Your task to perform on an android device: Search for a custom made wallet on Etsy Image 0: 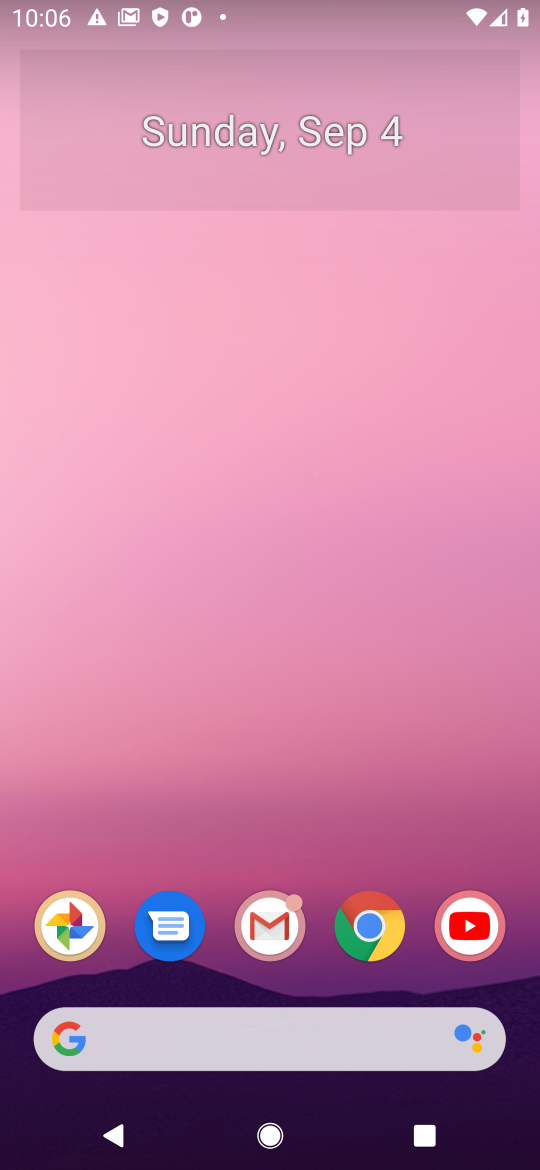
Step 0: press home button
Your task to perform on an android device: Search for a custom made wallet on Etsy Image 1: 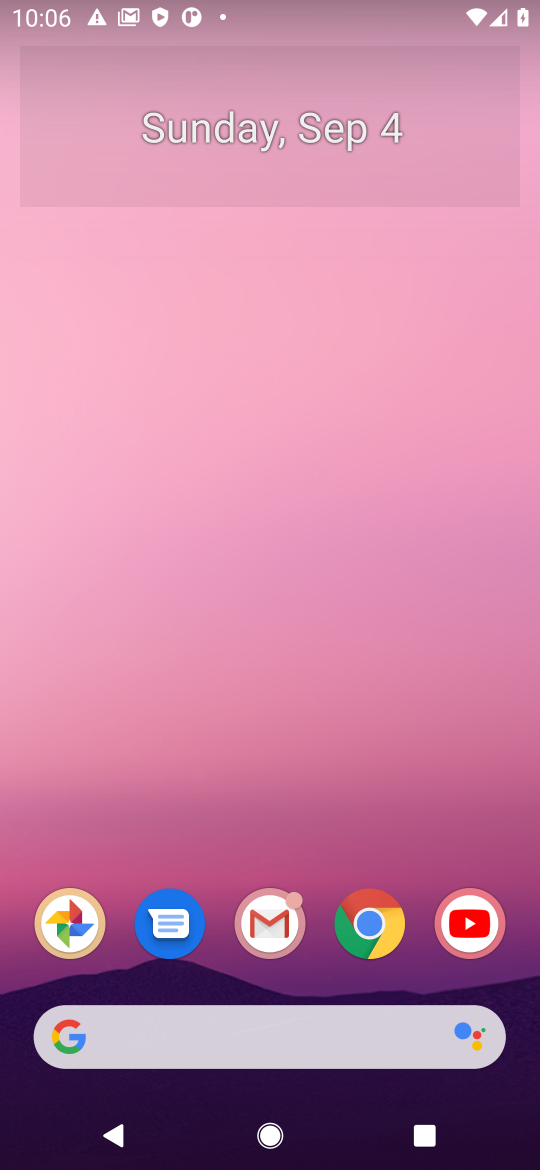
Step 1: click (357, 1033)
Your task to perform on an android device: Search for a custom made wallet on Etsy Image 2: 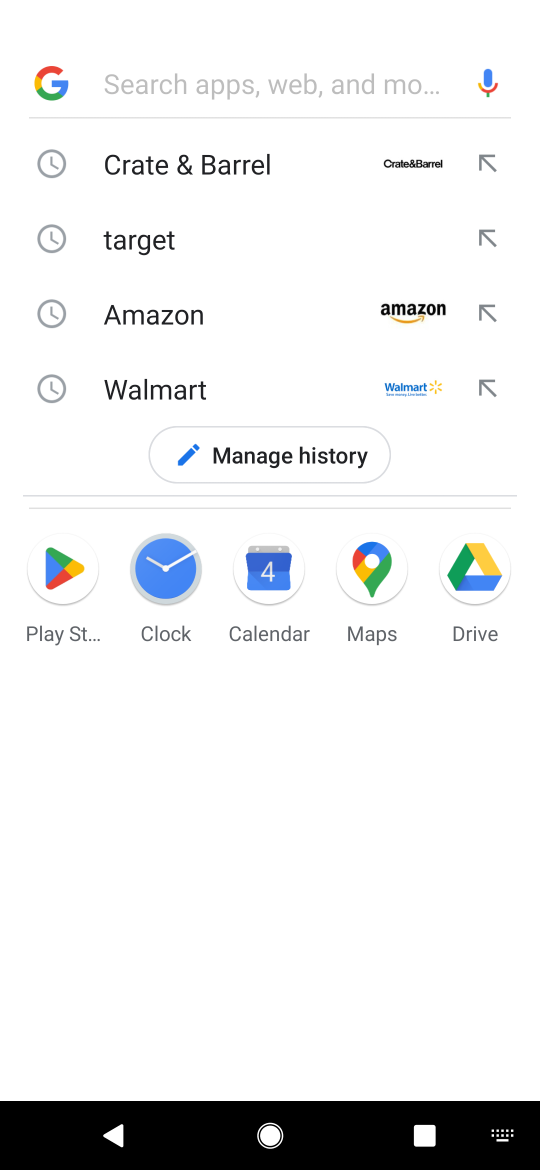
Step 2: press enter
Your task to perform on an android device: Search for a custom made wallet on Etsy Image 3: 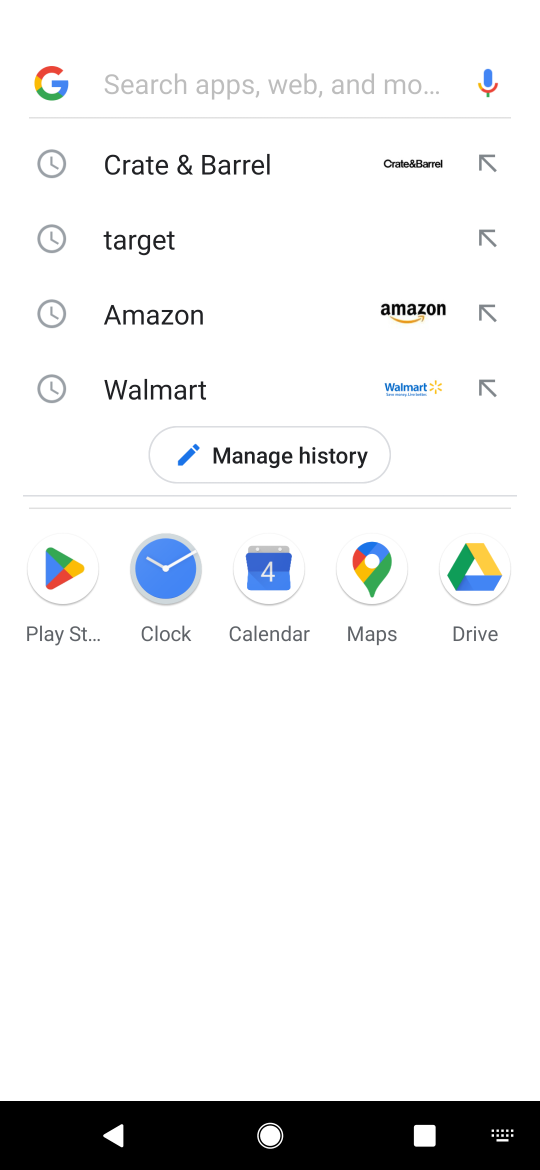
Step 3: type "etsy"
Your task to perform on an android device: Search for a custom made wallet on Etsy Image 4: 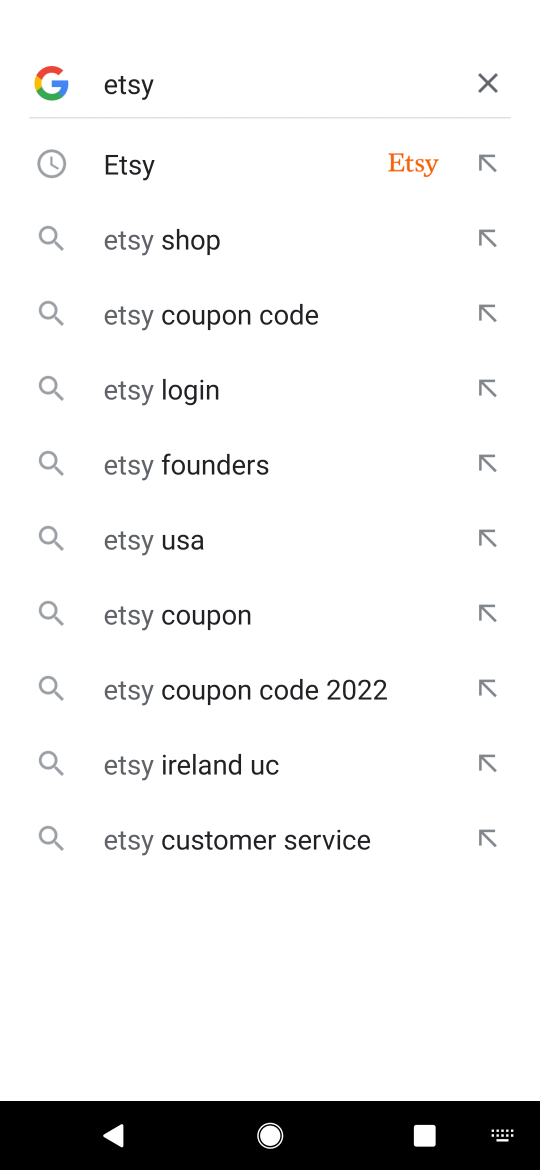
Step 4: click (288, 148)
Your task to perform on an android device: Search for a custom made wallet on Etsy Image 5: 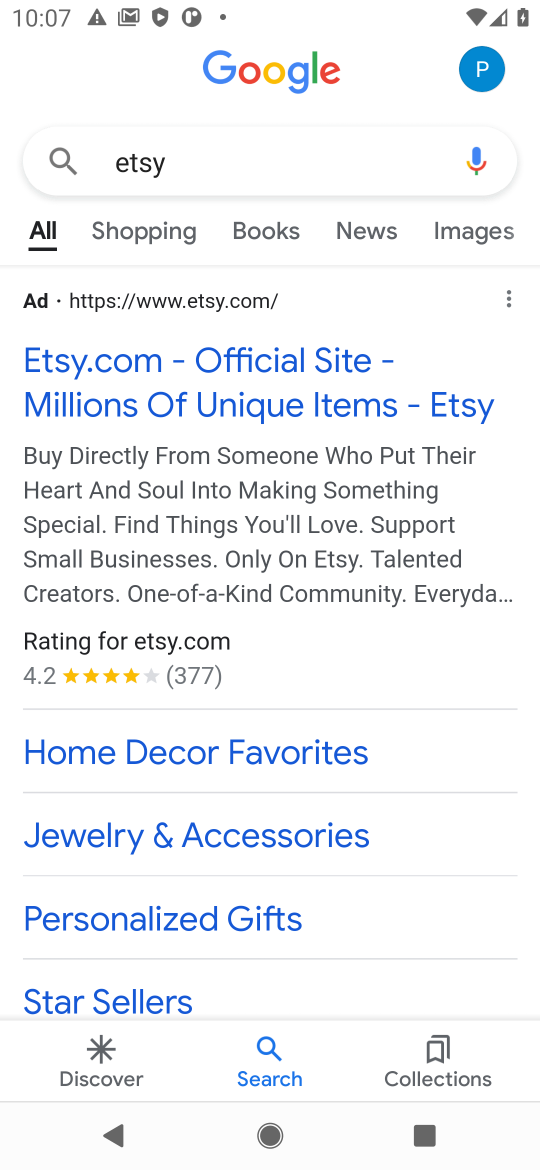
Step 5: click (404, 402)
Your task to perform on an android device: Search for a custom made wallet on Etsy Image 6: 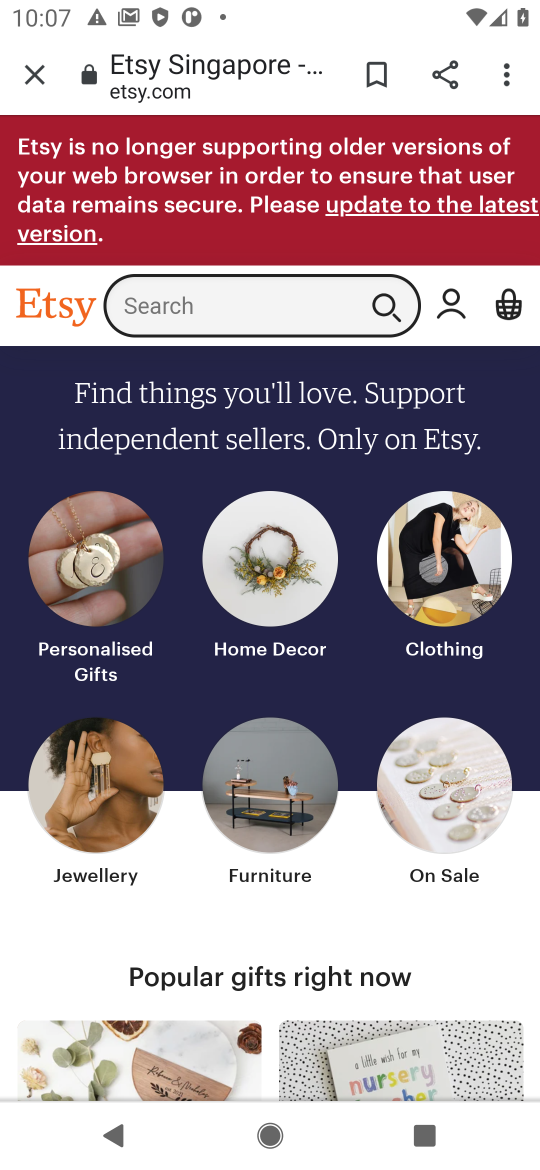
Step 6: click (232, 308)
Your task to perform on an android device: Search for a custom made wallet on Etsy Image 7: 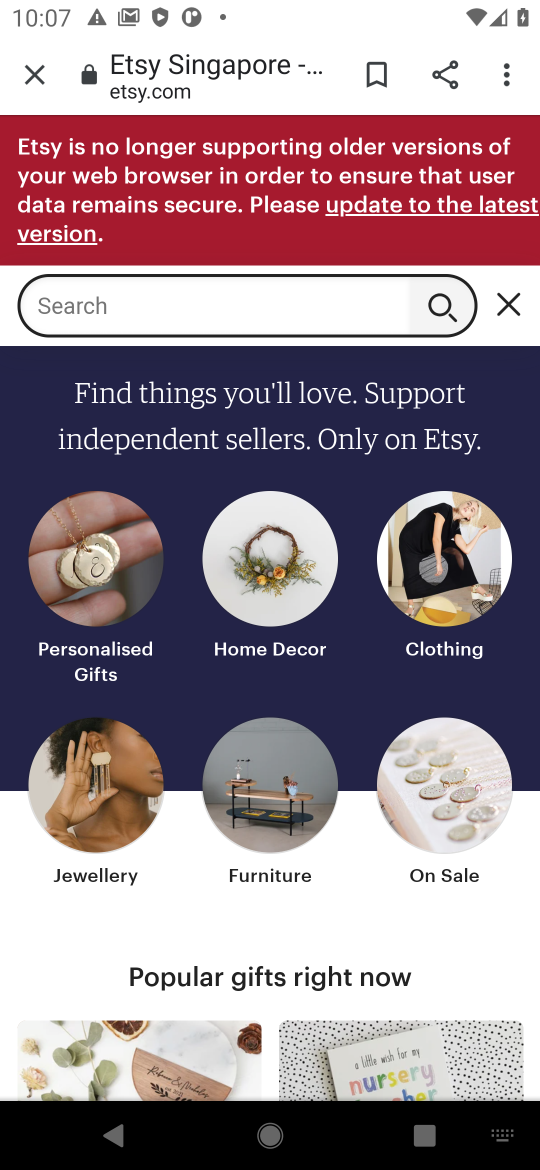
Step 7: type "custom made wallet"
Your task to perform on an android device: Search for a custom made wallet on Etsy Image 8: 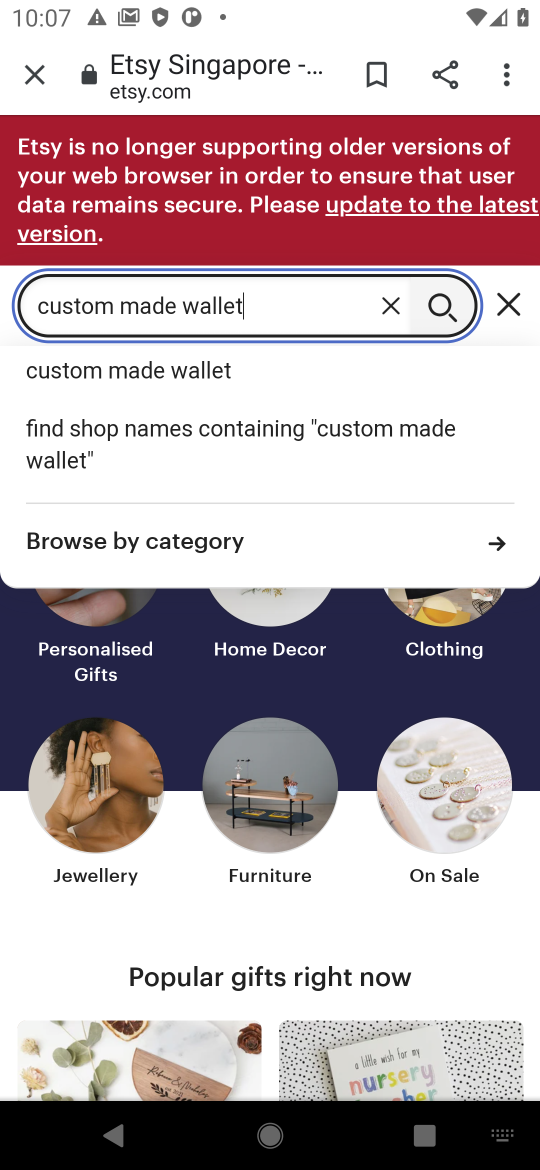
Step 8: click (188, 376)
Your task to perform on an android device: Search for a custom made wallet on Etsy Image 9: 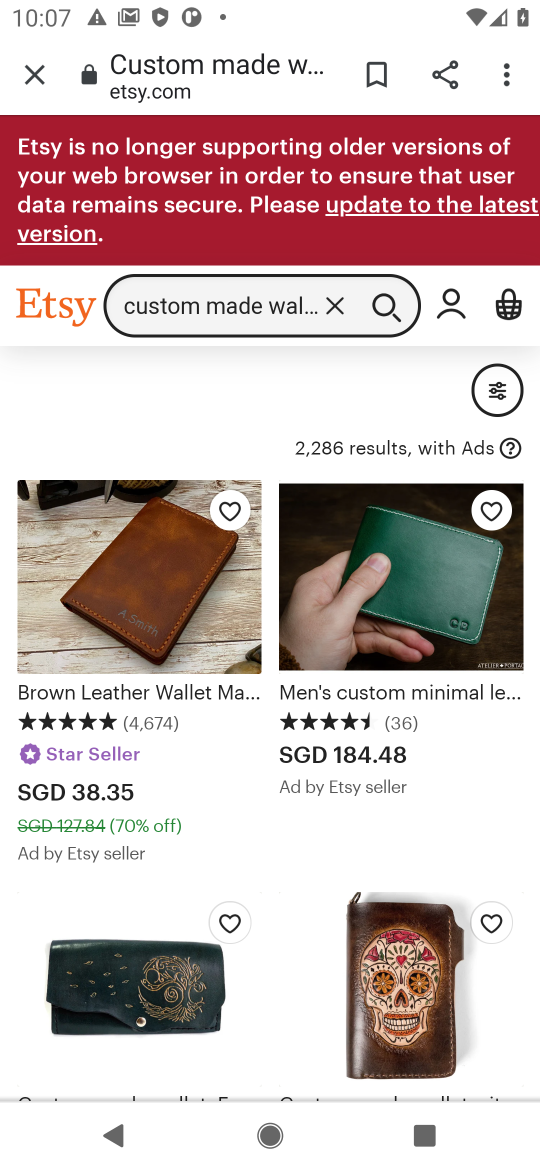
Step 9: task complete